Your task to perform on an android device: Is it going to rain today? Image 0: 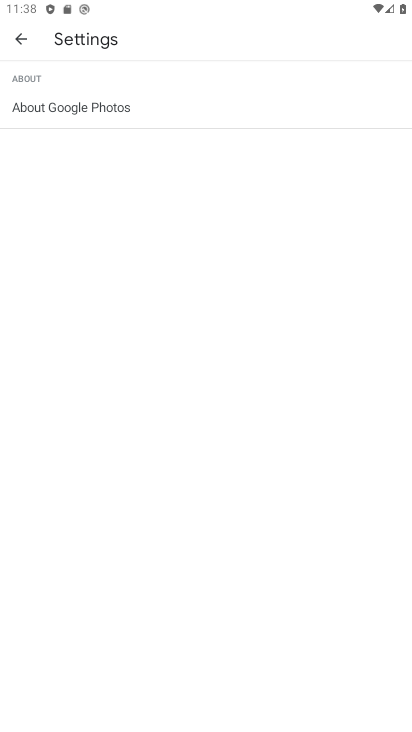
Step 0: press back button
Your task to perform on an android device: Is it going to rain today? Image 1: 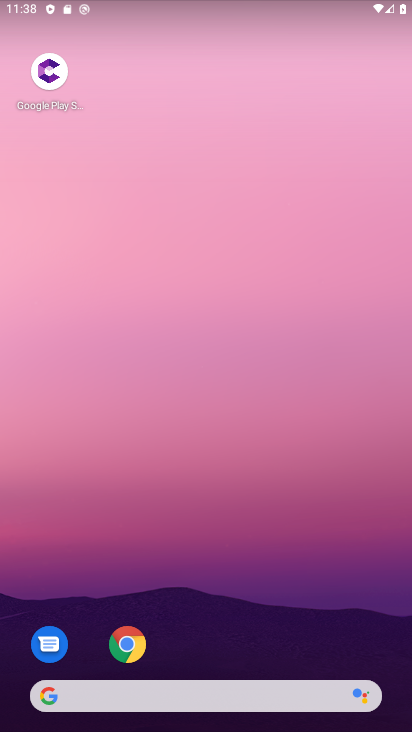
Step 1: click (167, 707)
Your task to perform on an android device: Is it going to rain today? Image 2: 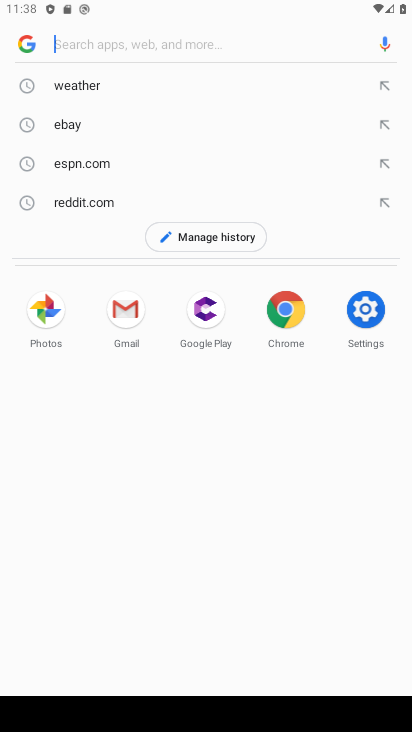
Step 2: click (278, 79)
Your task to perform on an android device: Is it going to rain today? Image 3: 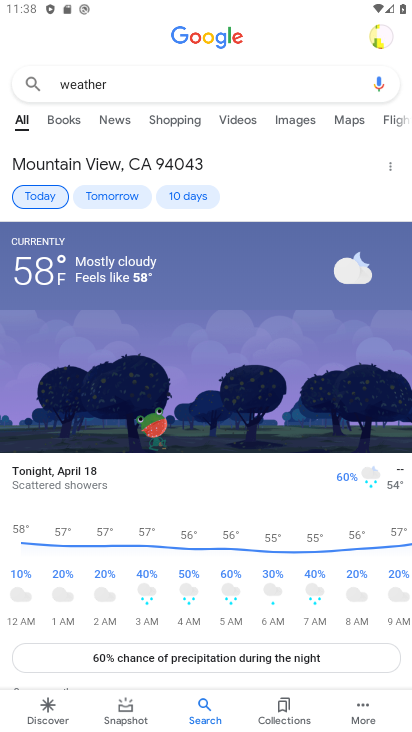
Step 3: drag from (159, 590) to (275, 96)
Your task to perform on an android device: Is it going to rain today? Image 4: 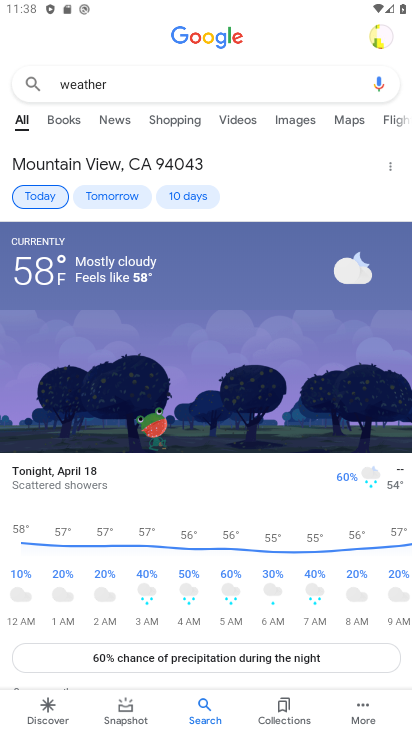
Step 4: drag from (210, 606) to (287, 223)
Your task to perform on an android device: Is it going to rain today? Image 5: 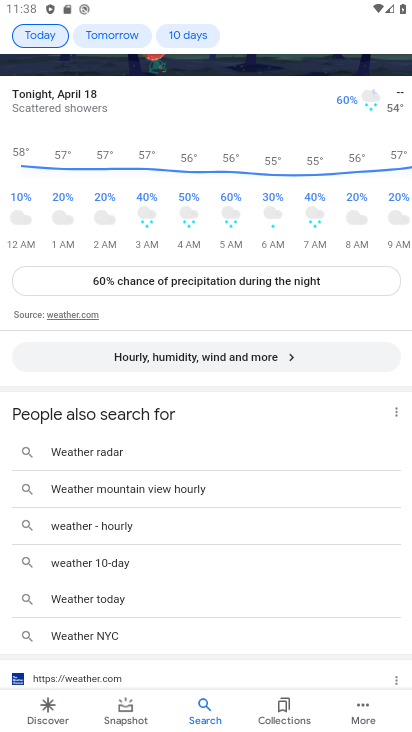
Step 5: drag from (183, 160) to (125, 436)
Your task to perform on an android device: Is it going to rain today? Image 6: 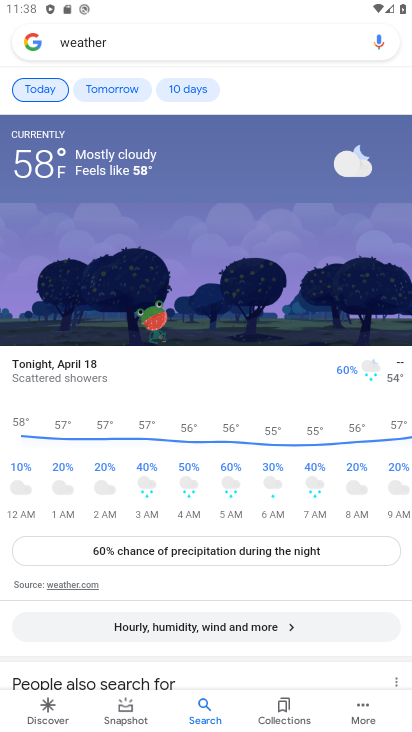
Step 6: click (171, 216)
Your task to perform on an android device: Is it going to rain today? Image 7: 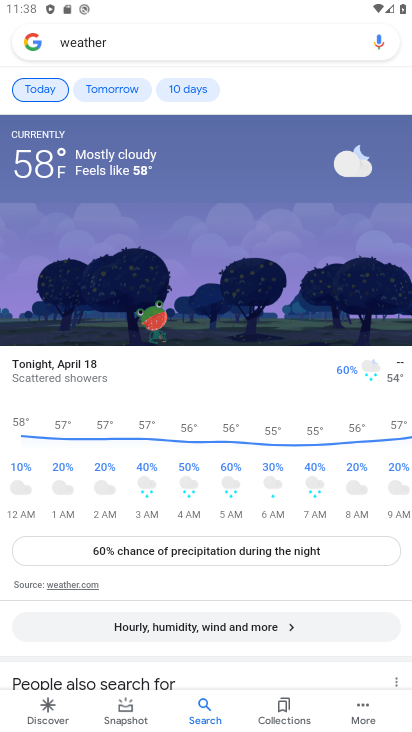
Step 7: click (179, 287)
Your task to perform on an android device: Is it going to rain today? Image 8: 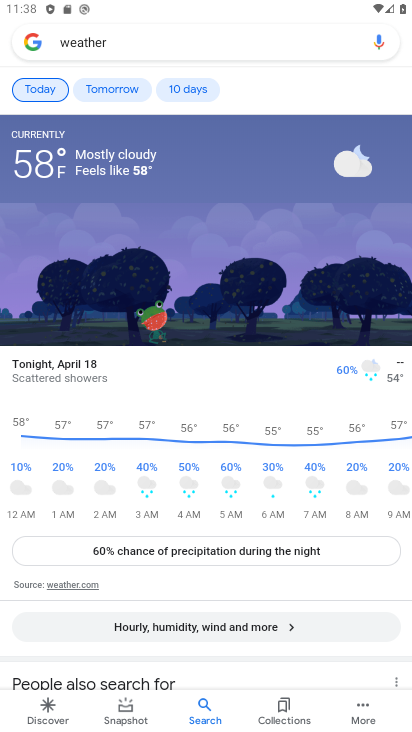
Step 8: click (180, 390)
Your task to perform on an android device: Is it going to rain today? Image 9: 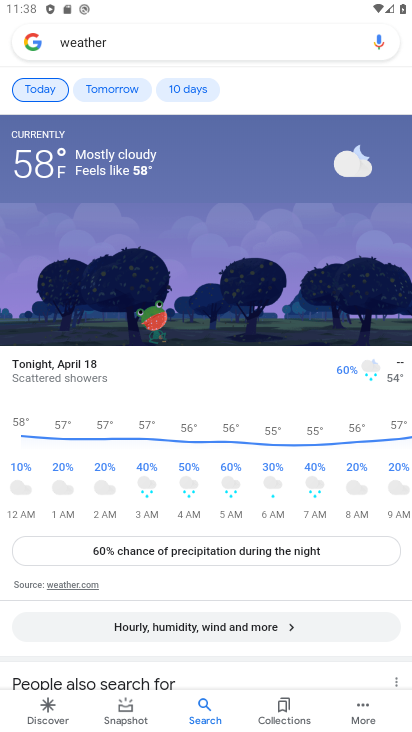
Step 9: click (202, 553)
Your task to perform on an android device: Is it going to rain today? Image 10: 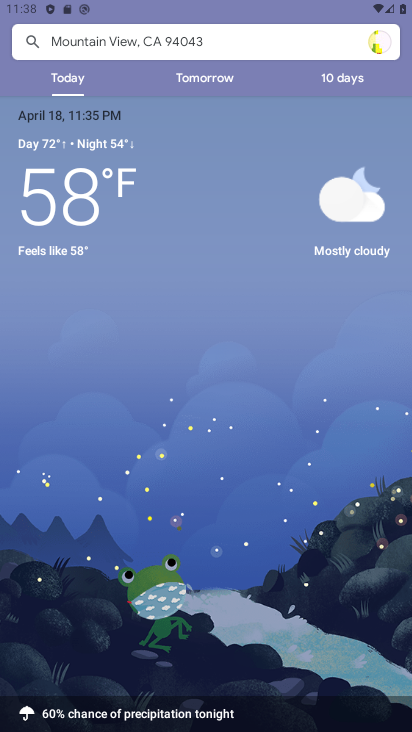
Step 10: task complete